Your task to perform on an android device: Show the shopping cart on bestbuy. Search for "apple airpods pro" on bestbuy, select the first entry, and add it to the cart. Image 0: 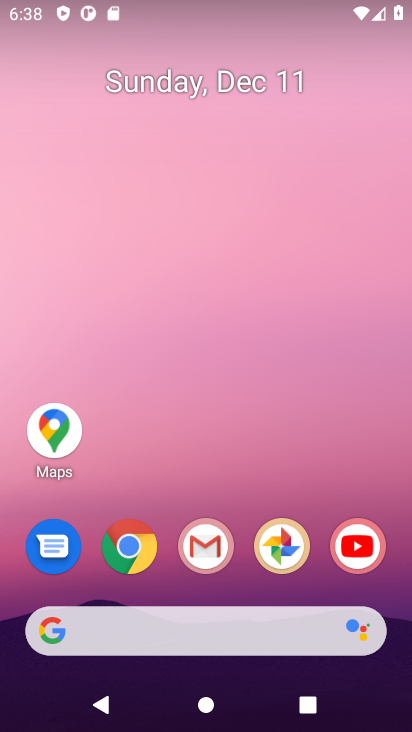
Step 0: click (133, 547)
Your task to perform on an android device: Show the shopping cart on bestbuy. Search for "apple airpods pro" on bestbuy, select the first entry, and add it to the cart. Image 1: 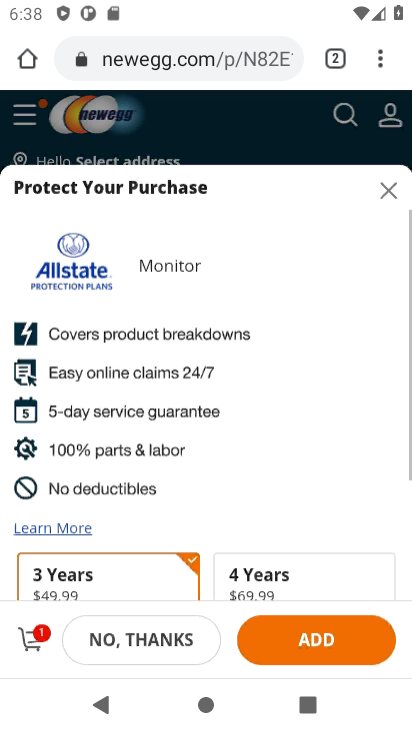
Step 1: click (175, 59)
Your task to perform on an android device: Show the shopping cart on bestbuy. Search for "apple airpods pro" on bestbuy, select the first entry, and add it to the cart. Image 2: 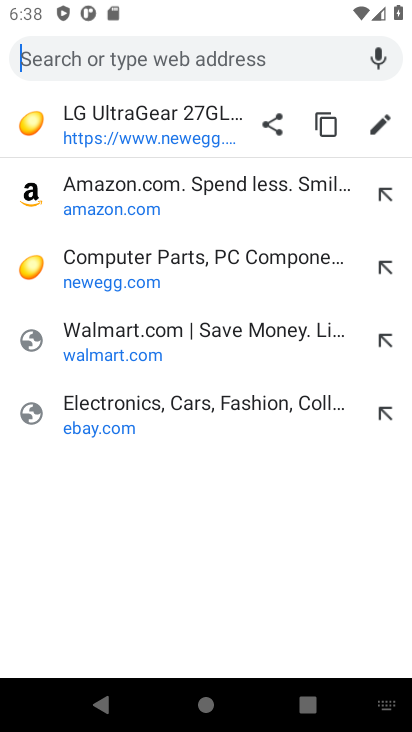
Step 2: type "bestbuy.com"
Your task to perform on an android device: Show the shopping cart on bestbuy. Search for "apple airpods pro" on bestbuy, select the first entry, and add it to the cart. Image 3: 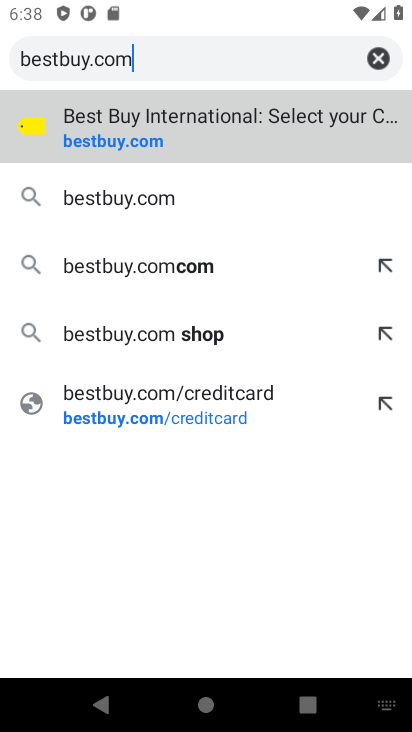
Step 3: click (114, 144)
Your task to perform on an android device: Show the shopping cart on bestbuy. Search for "apple airpods pro" on bestbuy, select the first entry, and add it to the cart. Image 4: 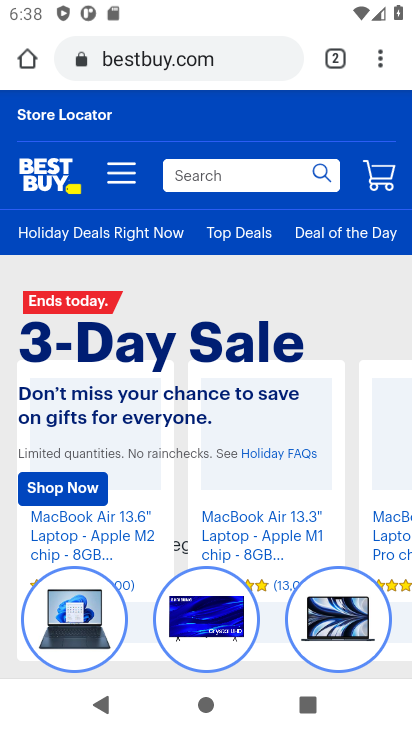
Step 4: click (382, 172)
Your task to perform on an android device: Show the shopping cart on bestbuy. Search for "apple airpods pro" on bestbuy, select the first entry, and add it to the cart. Image 5: 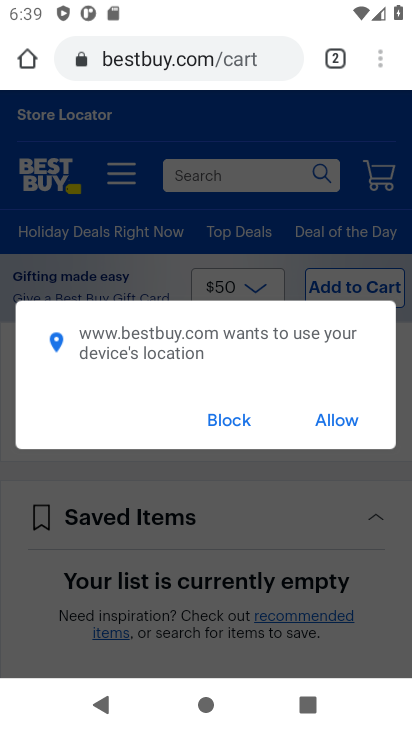
Step 5: click (223, 423)
Your task to perform on an android device: Show the shopping cart on bestbuy. Search for "apple airpods pro" on bestbuy, select the first entry, and add it to the cart. Image 6: 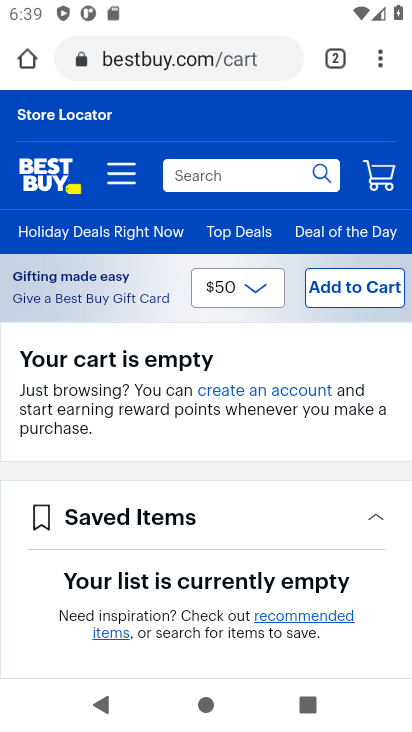
Step 6: click (197, 181)
Your task to perform on an android device: Show the shopping cart on bestbuy. Search for "apple airpods pro" on bestbuy, select the first entry, and add it to the cart. Image 7: 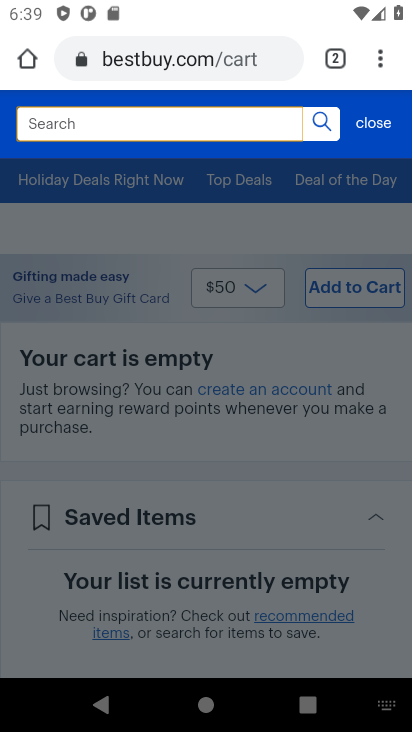
Step 7: type "apple airpods pro"
Your task to perform on an android device: Show the shopping cart on bestbuy. Search for "apple airpods pro" on bestbuy, select the first entry, and add it to the cart. Image 8: 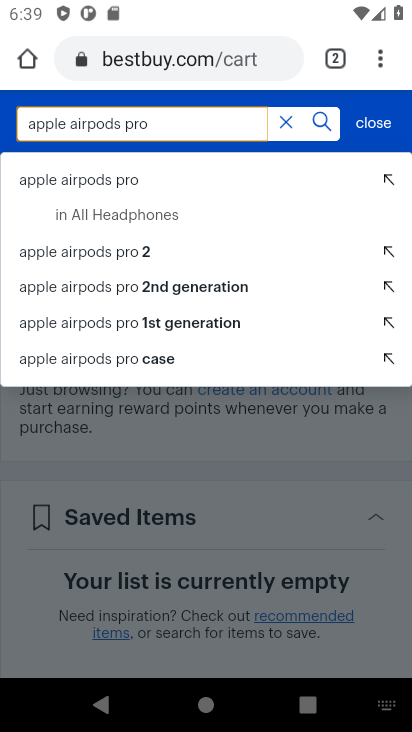
Step 8: click (62, 184)
Your task to perform on an android device: Show the shopping cart on bestbuy. Search for "apple airpods pro" on bestbuy, select the first entry, and add it to the cart. Image 9: 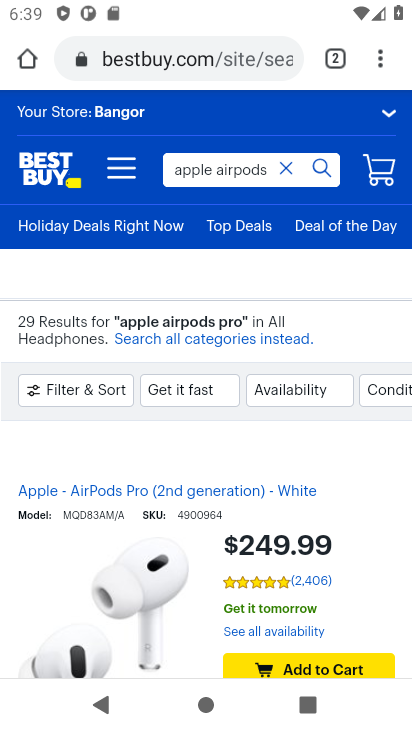
Step 9: drag from (143, 574) to (147, 277)
Your task to perform on an android device: Show the shopping cart on bestbuy. Search for "apple airpods pro" on bestbuy, select the first entry, and add it to the cart. Image 10: 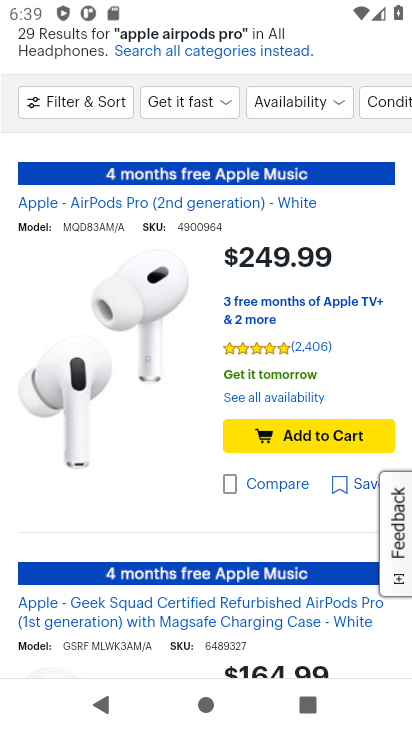
Step 10: click (311, 423)
Your task to perform on an android device: Show the shopping cart on bestbuy. Search for "apple airpods pro" on bestbuy, select the first entry, and add it to the cart. Image 11: 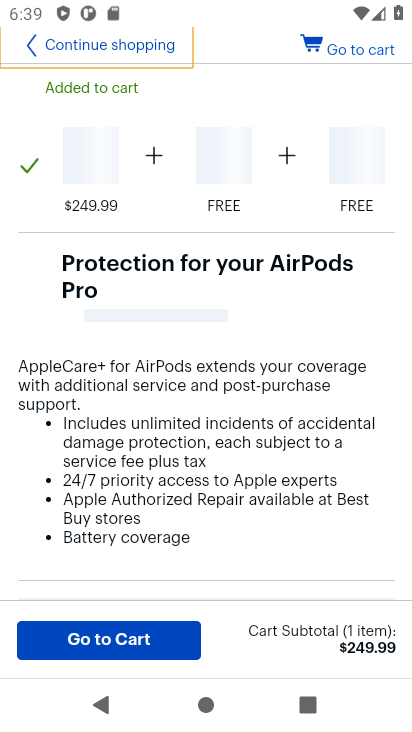
Step 11: task complete